Your task to perform on an android device: Open the web browser Image 0: 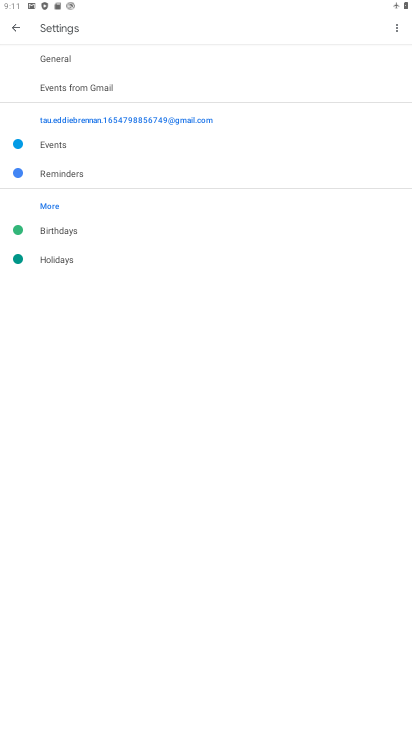
Step 0: press home button
Your task to perform on an android device: Open the web browser Image 1: 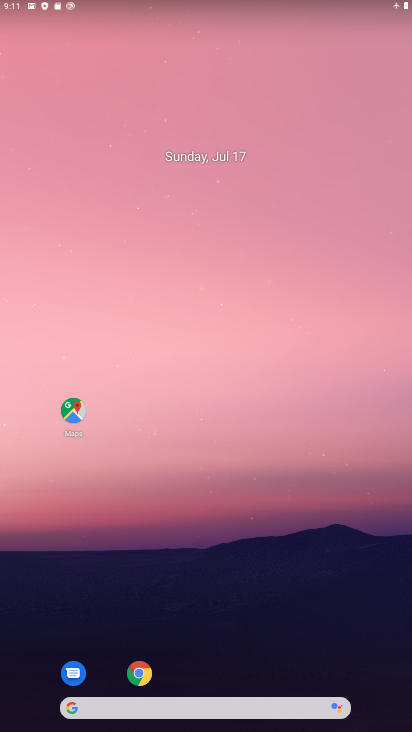
Step 1: click (137, 676)
Your task to perform on an android device: Open the web browser Image 2: 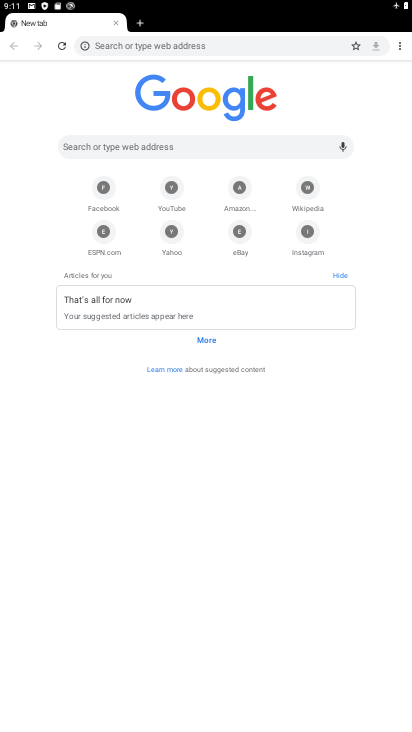
Step 2: task complete